Your task to perform on an android device: Open calendar and show me the first week of next month Image 0: 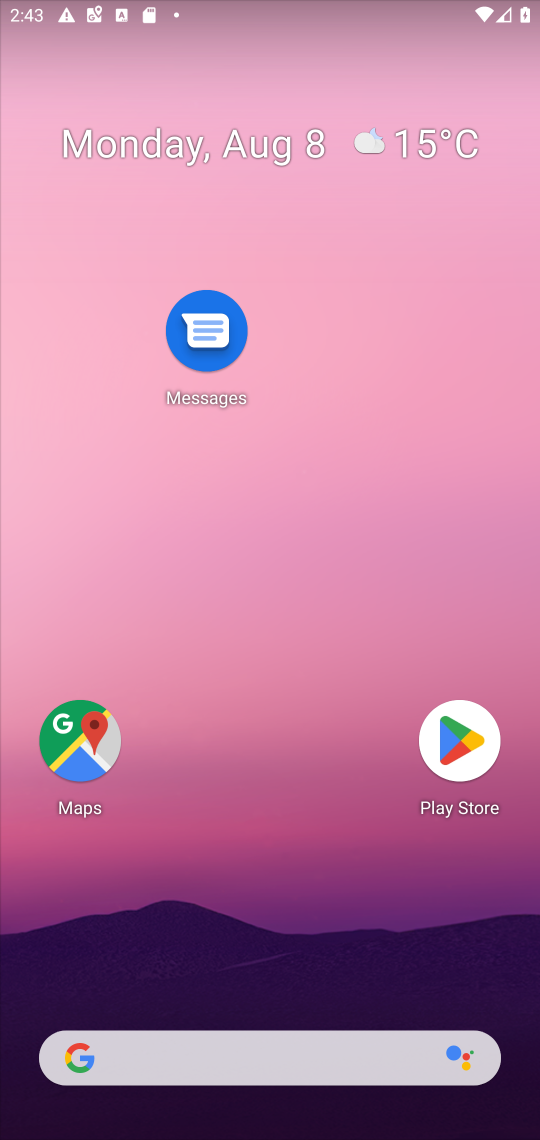
Step 0: drag from (251, 1058) to (252, 104)
Your task to perform on an android device: Open calendar and show me the first week of next month Image 1: 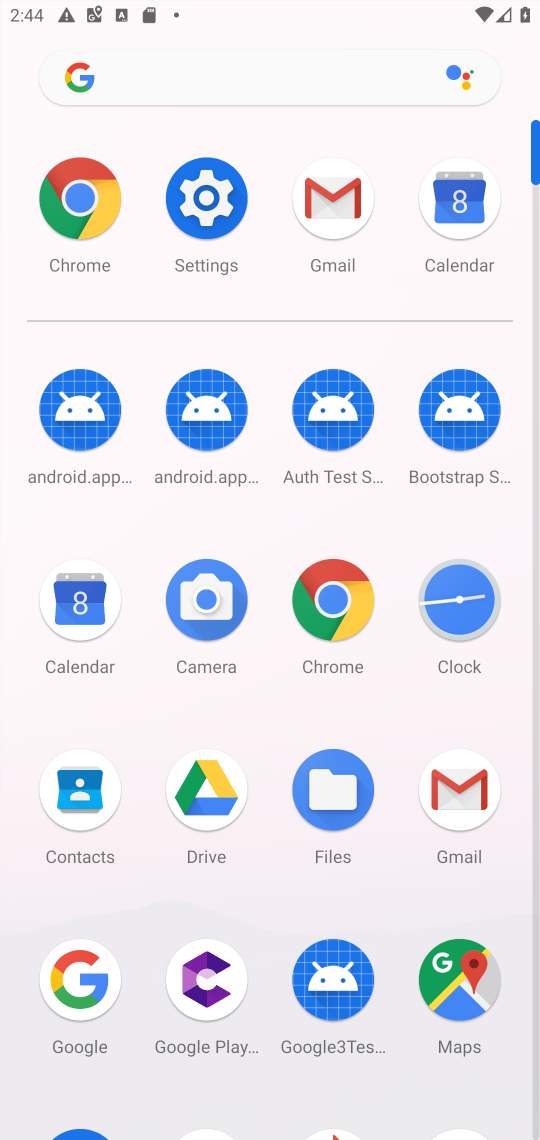
Step 1: click (456, 228)
Your task to perform on an android device: Open calendar and show me the first week of next month Image 2: 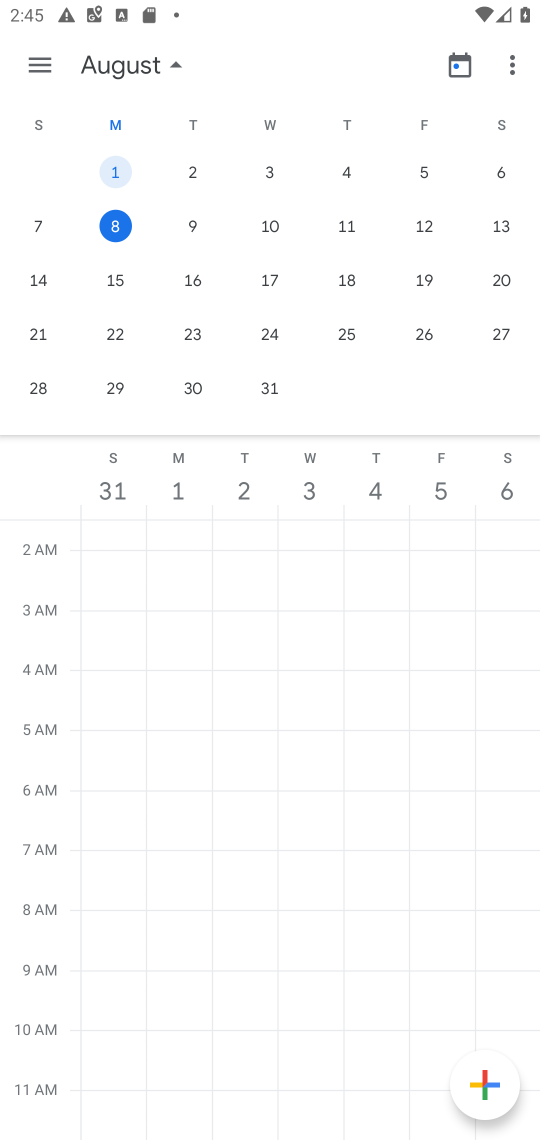
Step 2: drag from (472, 332) to (114, 289)
Your task to perform on an android device: Open calendar and show me the first week of next month Image 3: 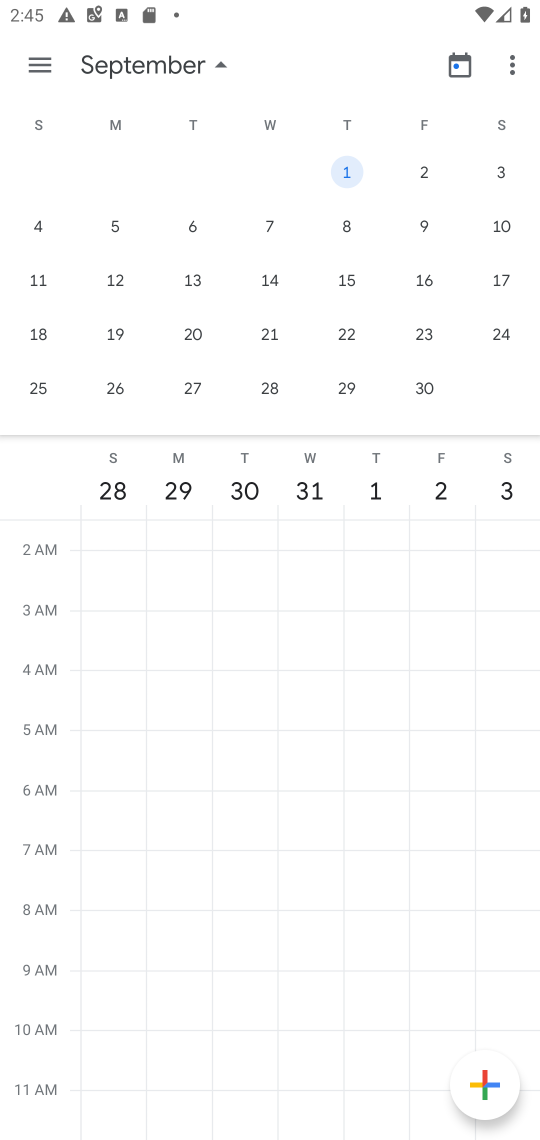
Step 3: click (406, 174)
Your task to perform on an android device: Open calendar and show me the first week of next month Image 4: 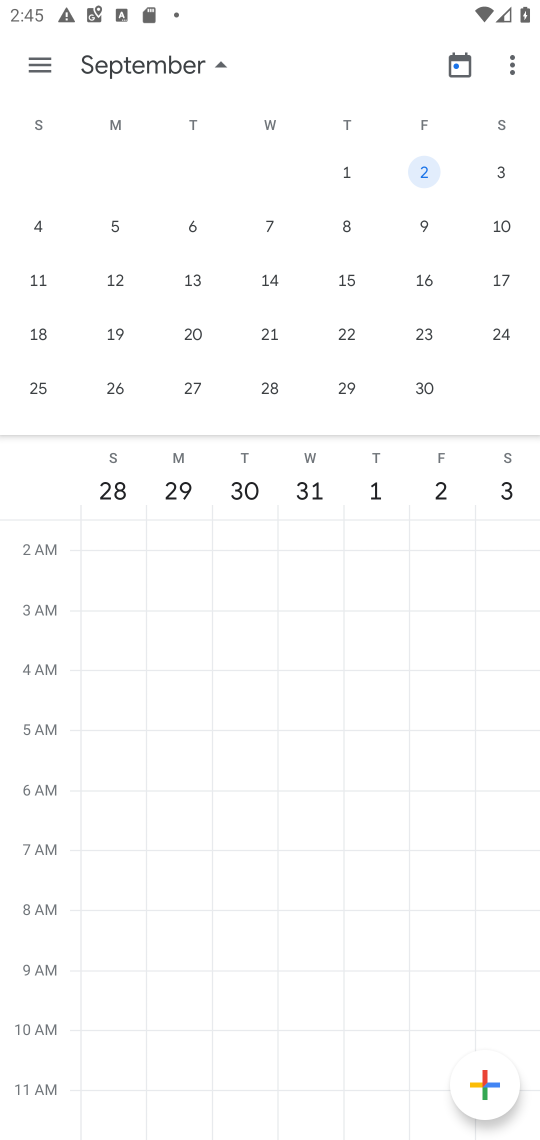
Step 4: task complete